Your task to perform on an android device: show emergency info Image 0: 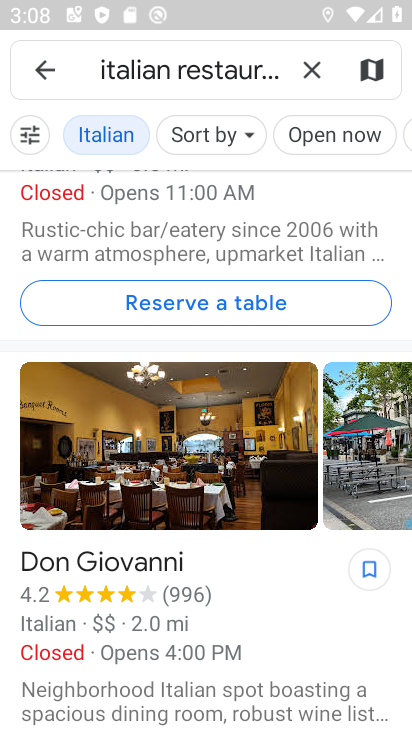
Step 0: drag from (198, 609) to (232, 304)
Your task to perform on an android device: show emergency info Image 1: 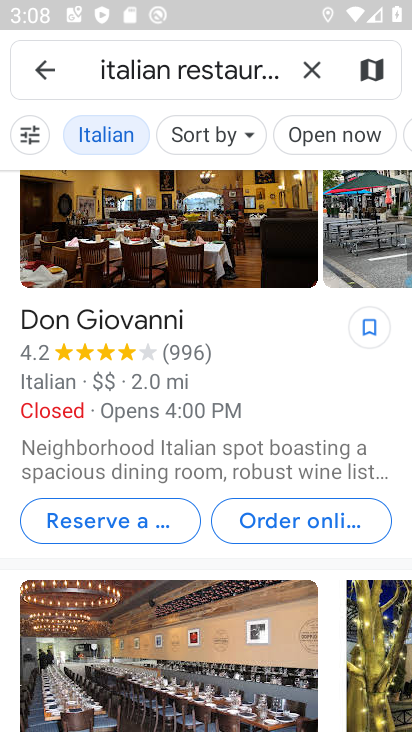
Step 1: drag from (239, 244) to (380, 702)
Your task to perform on an android device: show emergency info Image 2: 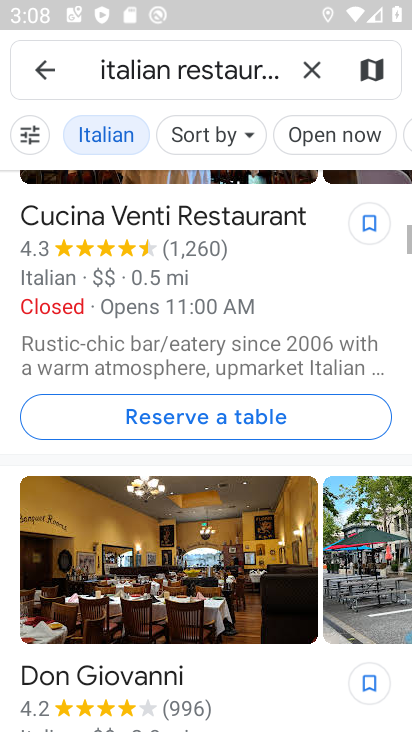
Step 2: click (37, 71)
Your task to perform on an android device: show emergency info Image 3: 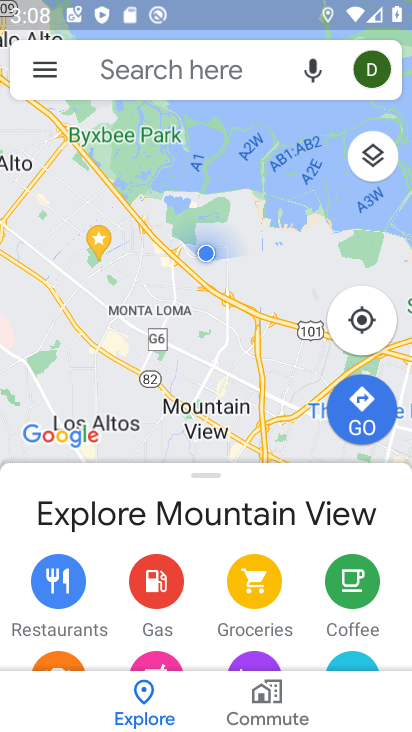
Step 3: drag from (202, 618) to (210, 188)
Your task to perform on an android device: show emergency info Image 4: 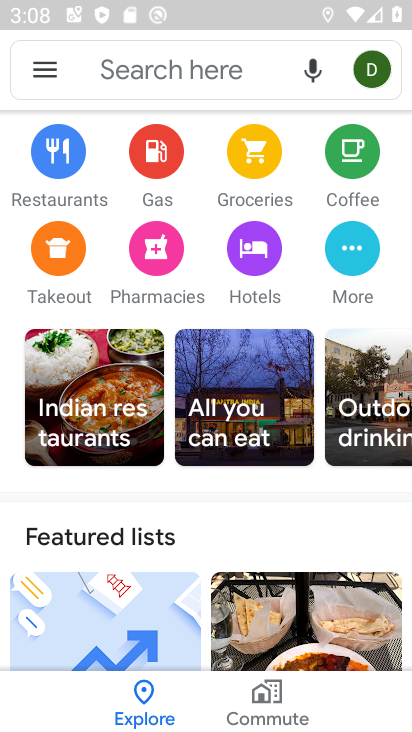
Step 4: drag from (210, 637) to (207, 310)
Your task to perform on an android device: show emergency info Image 5: 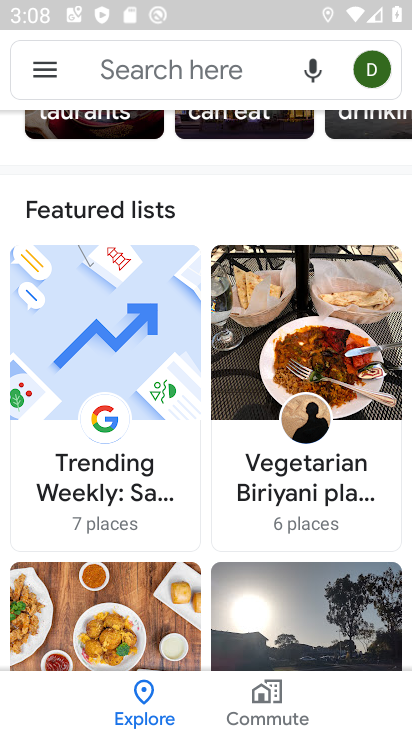
Step 5: click (34, 68)
Your task to perform on an android device: show emergency info Image 6: 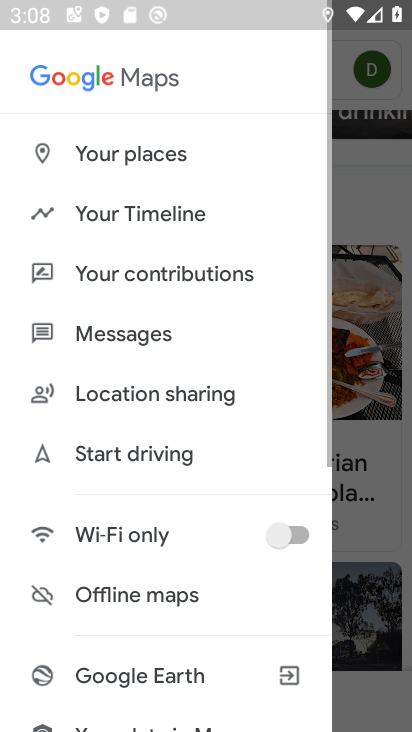
Step 6: press home button
Your task to perform on an android device: show emergency info Image 7: 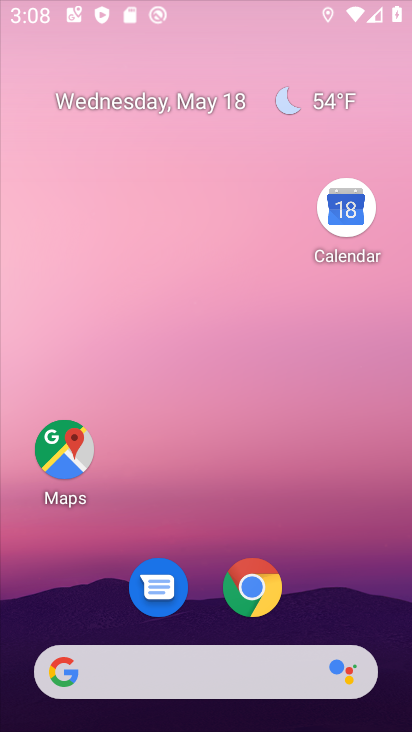
Step 7: drag from (182, 619) to (144, 41)
Your task to perform on an android device: show emergency info Image 8: 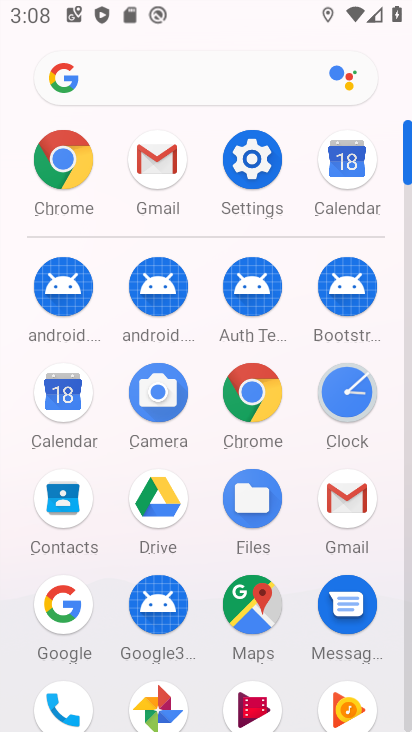
Step 8: click (242, 152)
Your task to perform on an android device: show emergency info Image 9: 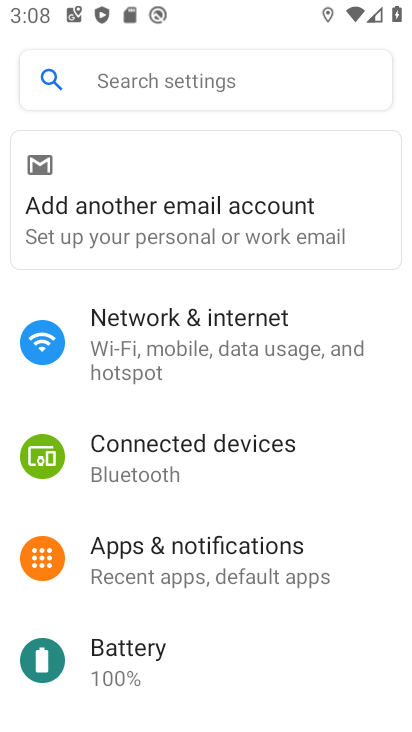
Step 9: drag from (175, 670) to (234, 86)
Your task to perform on an android device: show emergency info Image 10: 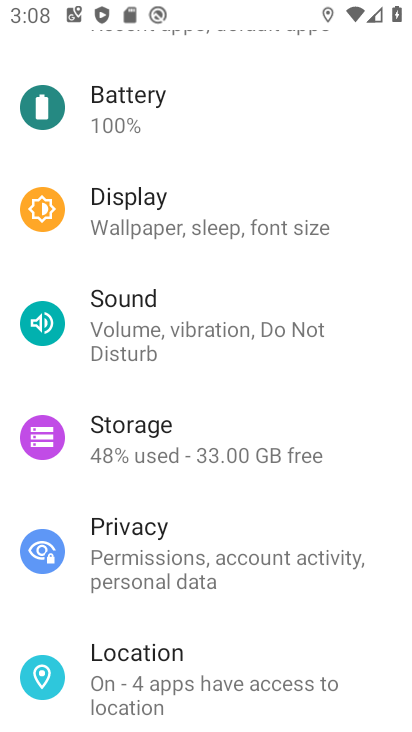
Step 10: drag from (197, 632) to (214, 51)
Your task to perform on an android device: show emergency info Image 11: 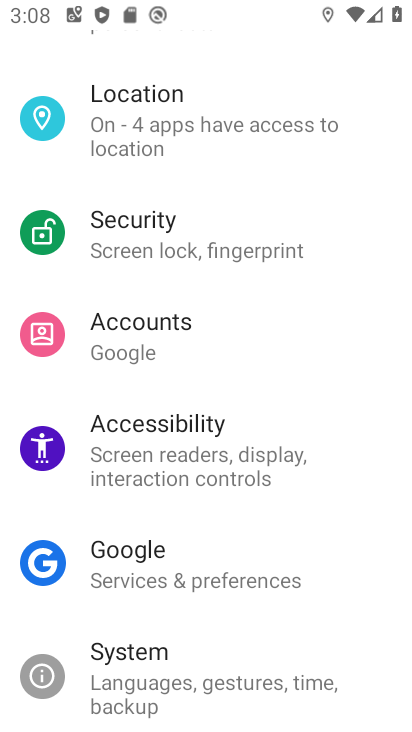
Step 11: drag from (151, 707) to (224, 85)
Your task to perform on an android device: show emergency info Image 12: 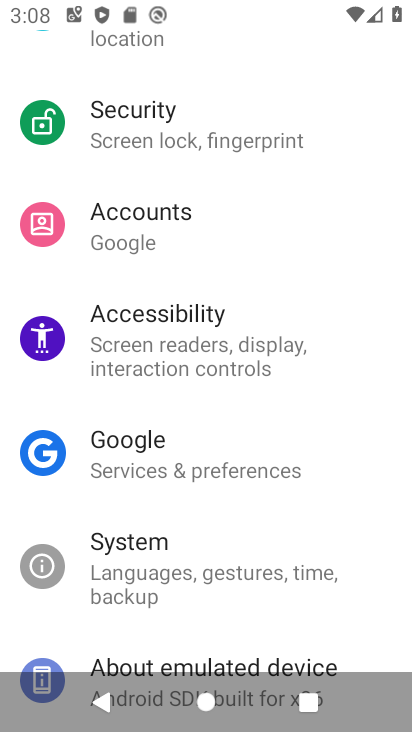
Step 12: click (160, 663)
Your task to perform on an android device: show emergency info Image 13: 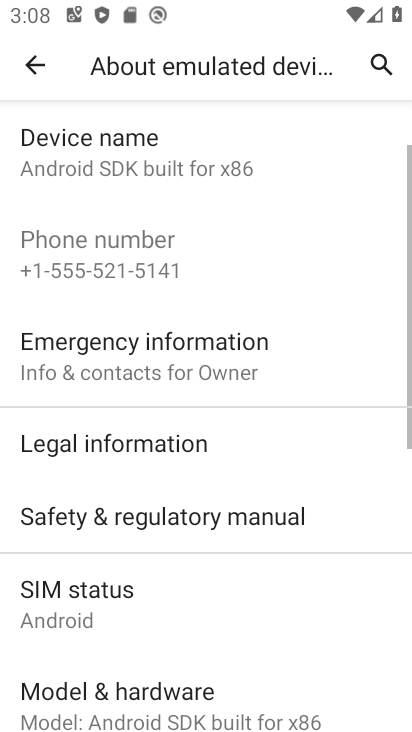
Step 13: click (179, 360)
Your task to perform on an android device: show emergency info Image 14: 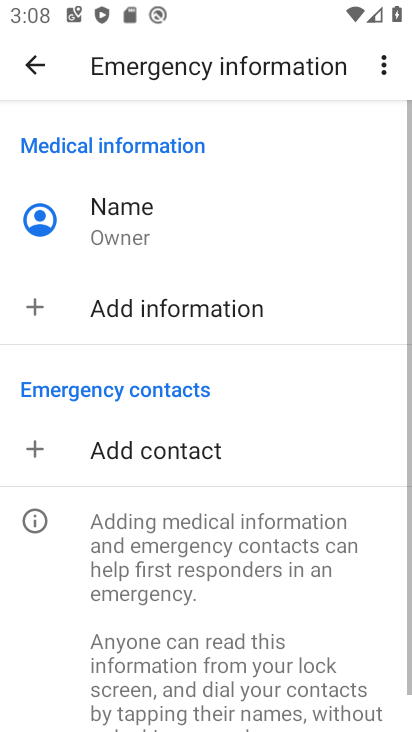
Step 14: task complete